Your task to perform on an android device: Open sound settings Image 0: 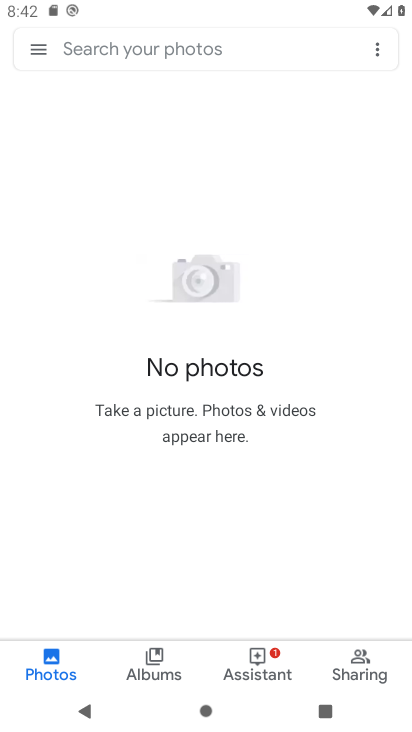
Step 0: press home button
Your task to perform on an android device: Open sound settings Image 1: 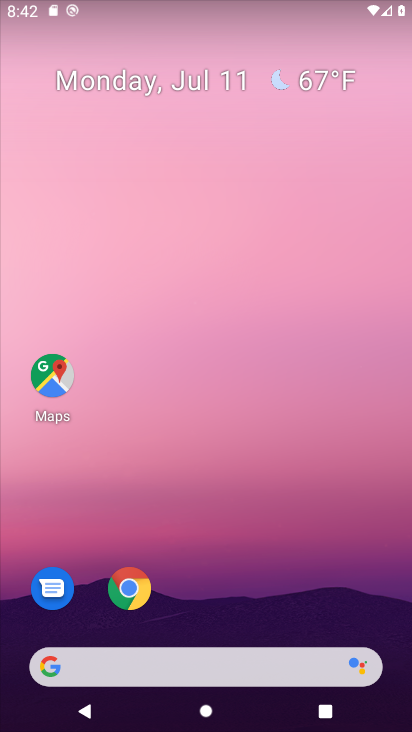
Step 1: drag from (302, 575) to (235, 0)
Your task to perform on an android device: Open sound settings Image 2: 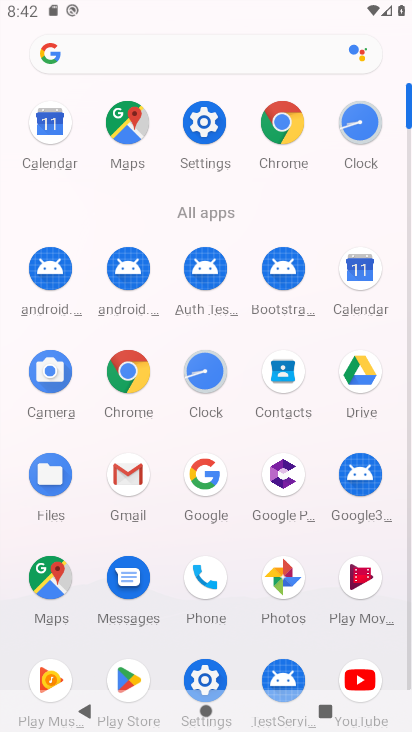
Step 2: click (213, 115)
Your task to perform on an android device: Open sound settings Image 3: 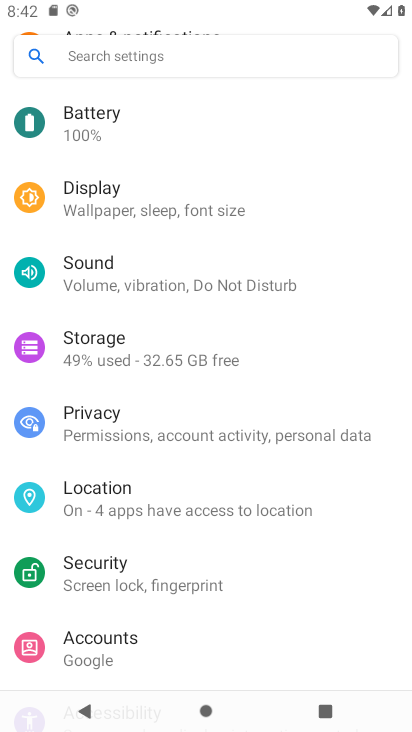
Step 3: click (114, 278)
Your task to perform on an android device: Open sound settings Image 4: 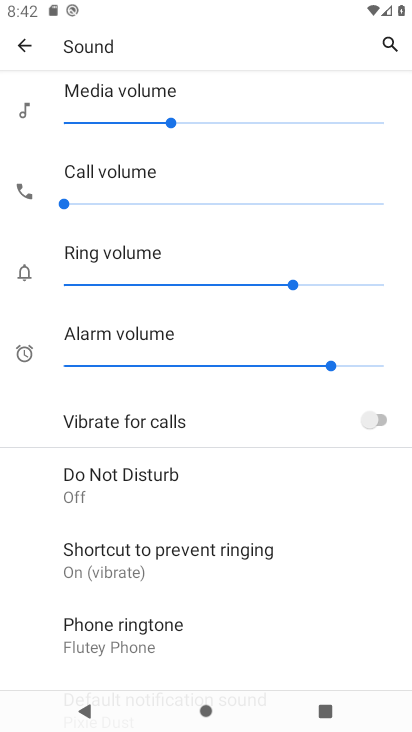
Step 4: task complete